Your task to perform on an android device: Open my contact list Image 0: 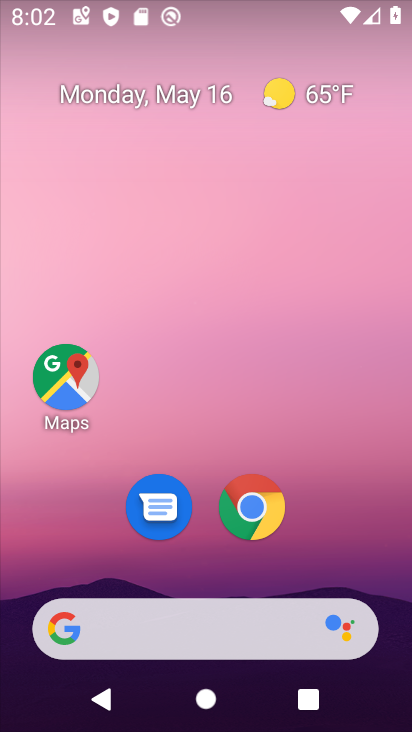
Step 0: press home button
Your task to perform on an android device: Open my contact list Image 1: 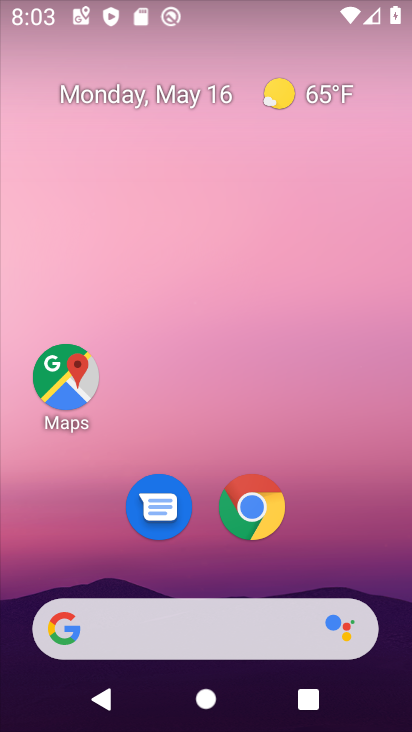
Step 1: drag from (212, 563) to (222, 229)
Your task to perform on an android device: Open my contact list Image 2: 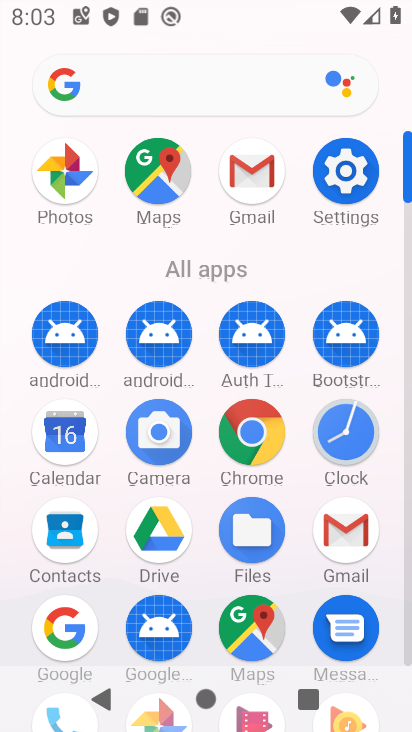
Step 2: click (62, 529)
Your task to perform on an android device: Open my contact list Image 3: 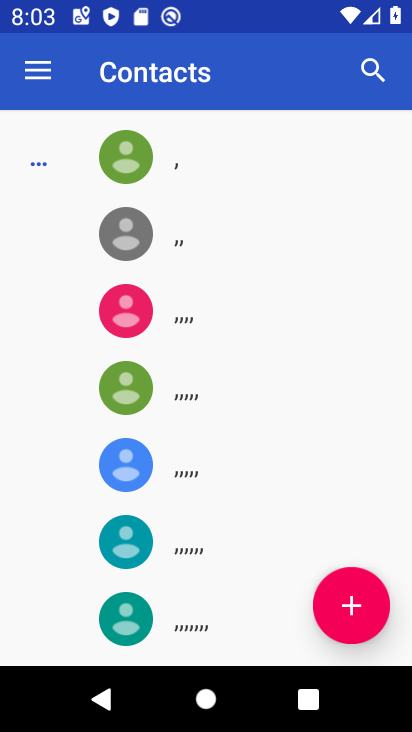
Step 3: drag from (181, 577) to (160, 104)
Your task to perform on an android device: Open my contact list Image 4: 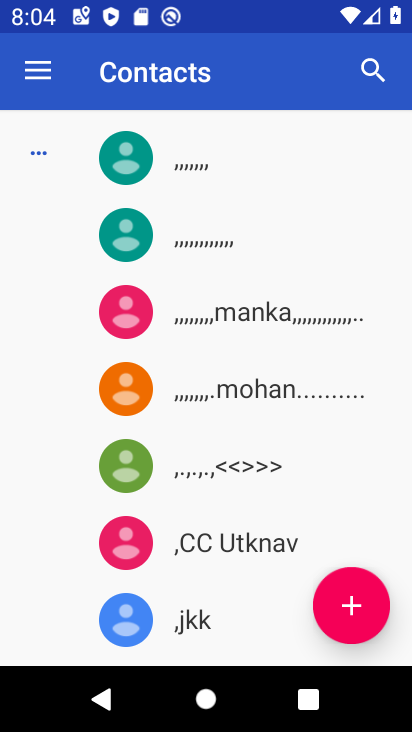
Step 4: click (216, 289)
Your task to perform on an android device: Open my contact list Image 5: 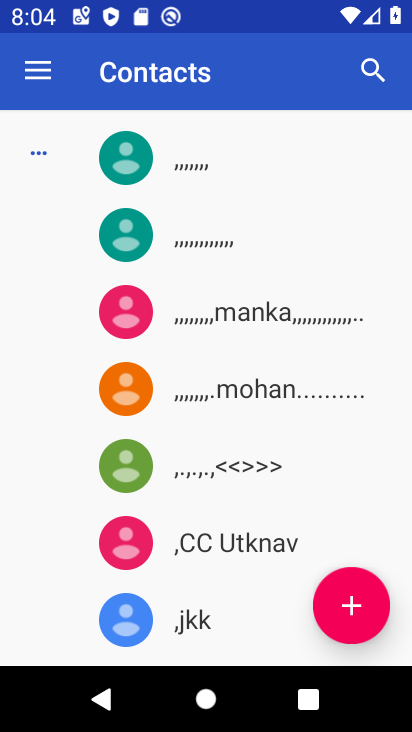
Step 5: task complete